Your task to perform on an android device: Clear all items from cart on walmart.com. Add usb-c to usb-a to the cart on walmart.com Image 0: 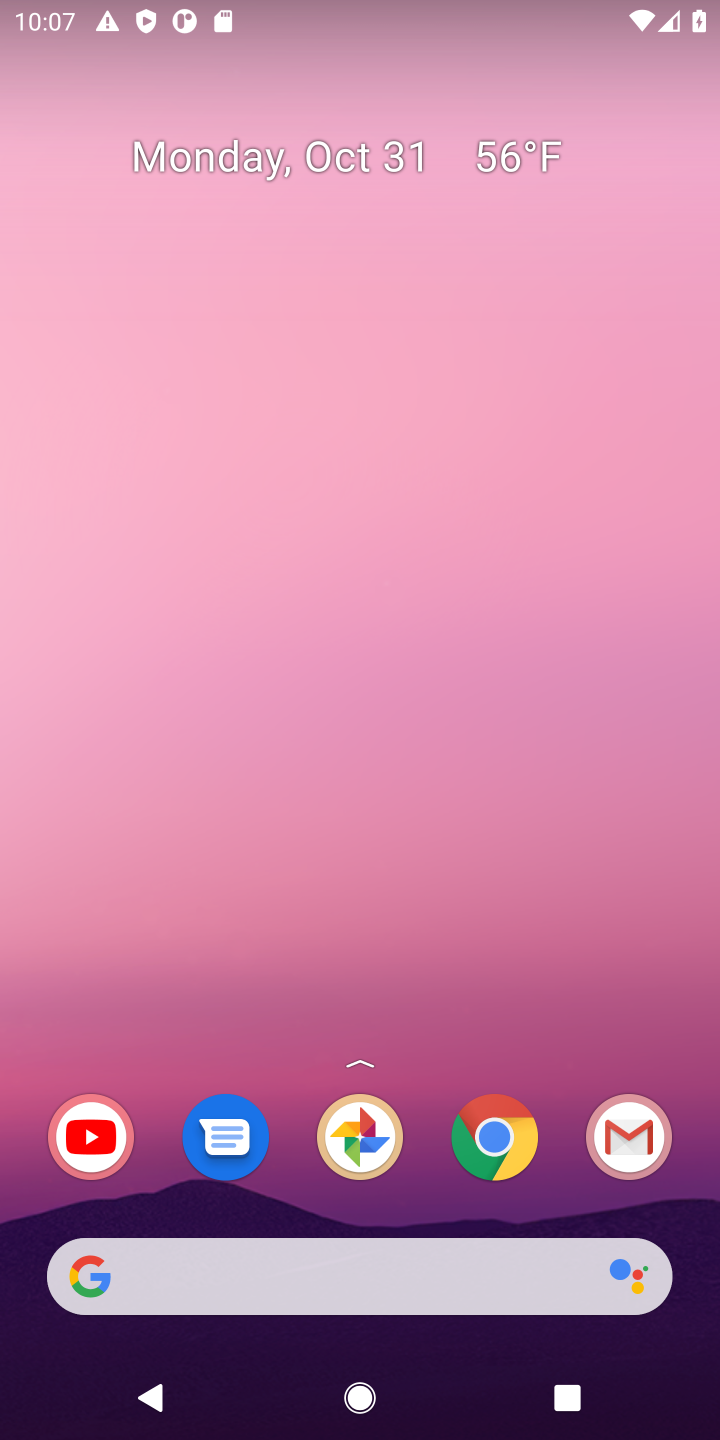
Step 0: click (496, 1136)
Your task to perform on an android device: Clear all items from cart on walmart.com. Add usb-c to usb-a to the cart on walmart.com Image 1: 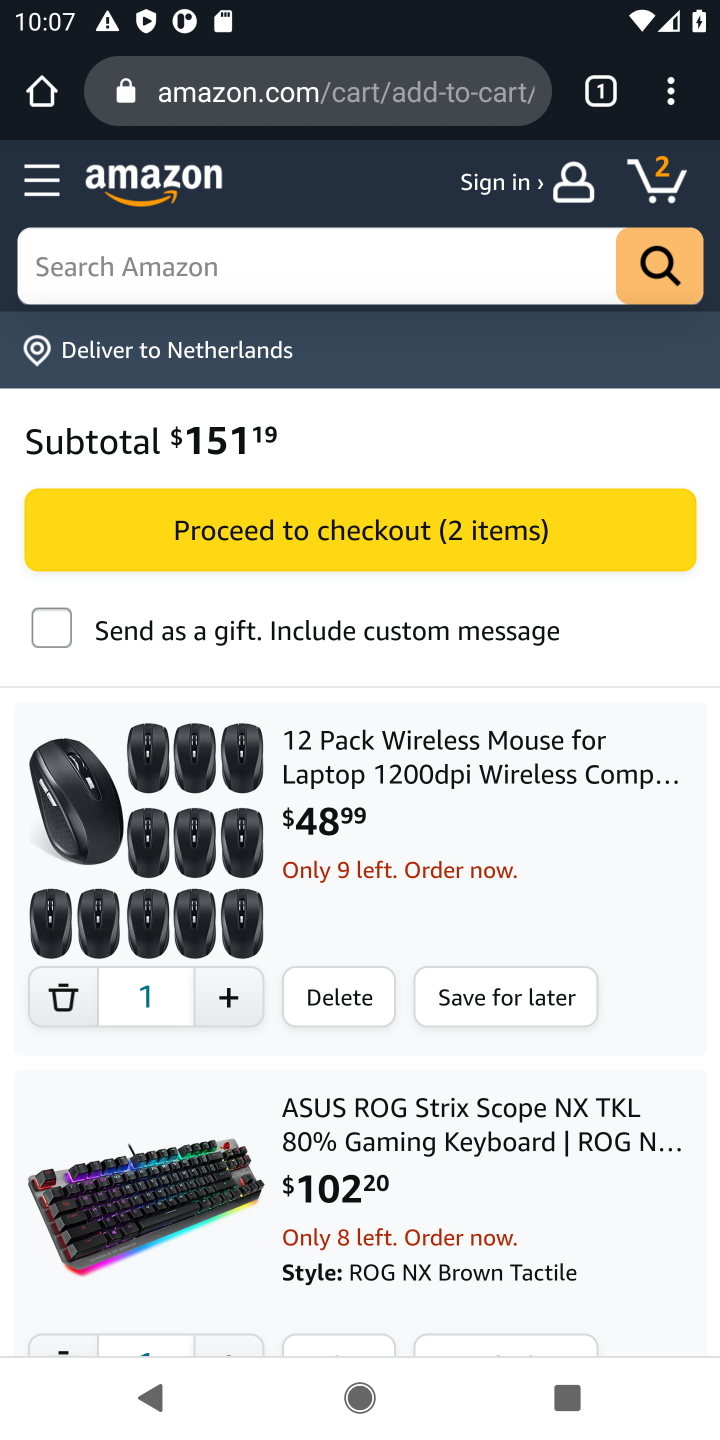
Step 1: click (322, 76)
Your task to perform on an android device: Clear all items from cart on walmart.com. Add usb-c to usb-a to the cart on walmart.com Image 2: 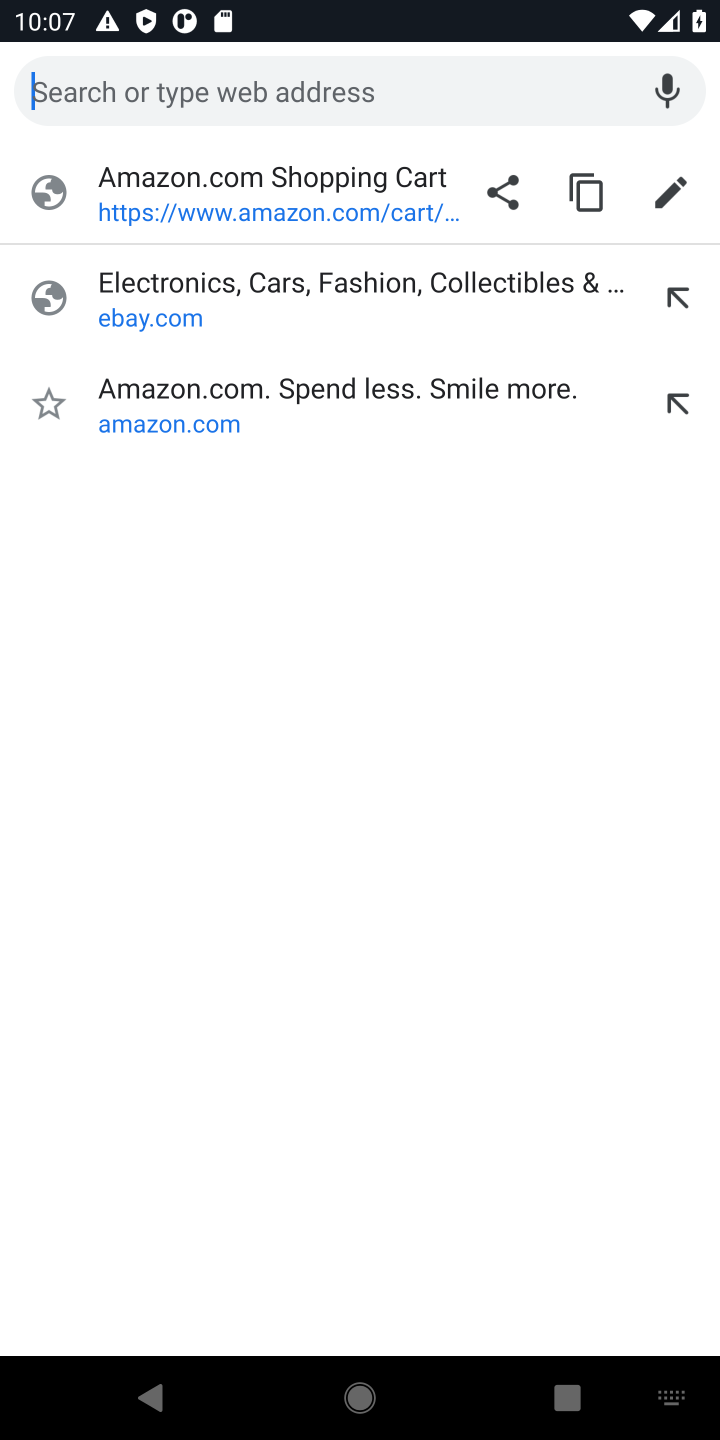
Step 2: type "walmart.com"
Your task to perform on an android device: Clear all items from cart on walmart.com. Add usb-c to usb-a to the cart on walmart.com Image 3: 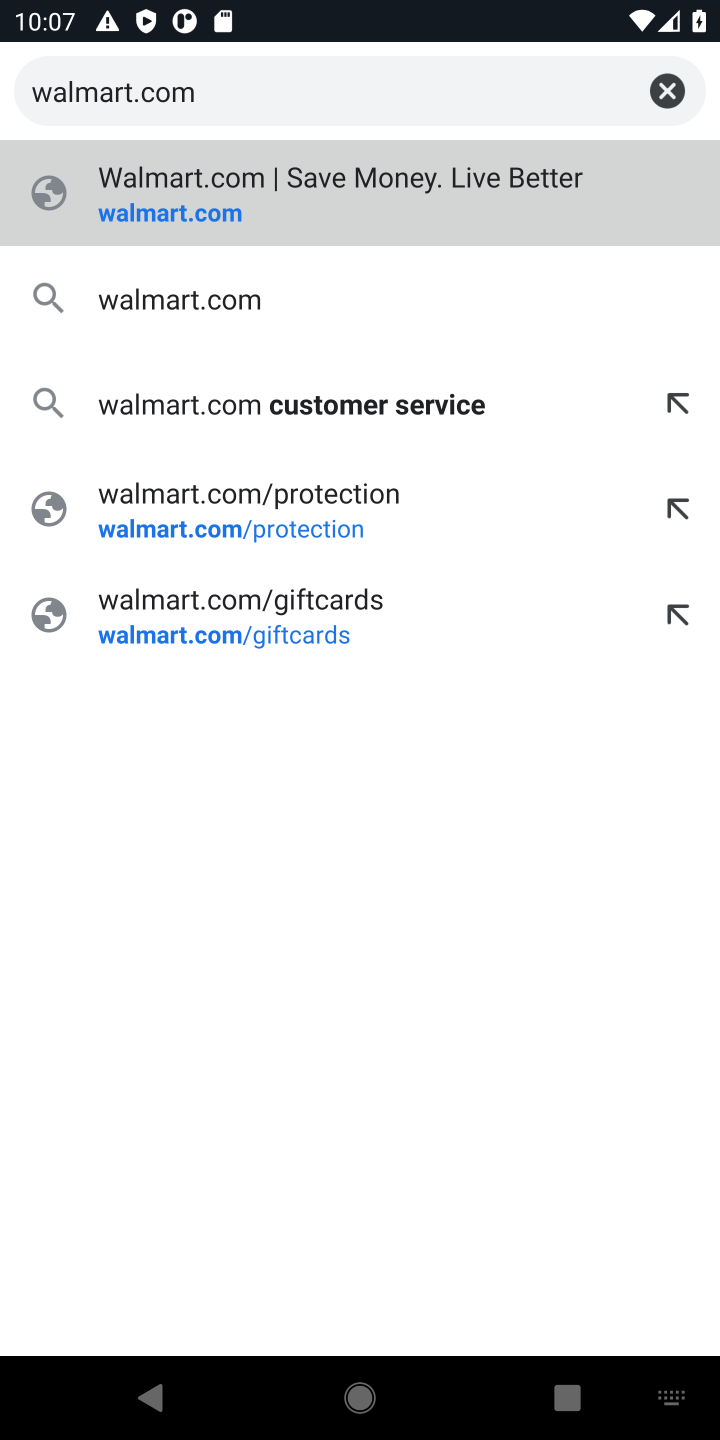
Step 3: click (234, 309)
Your task to perform on an android device: Clear all items from cart on walmart.com. Add usb-c to usb-a to the cart on walmart.com Image 4: 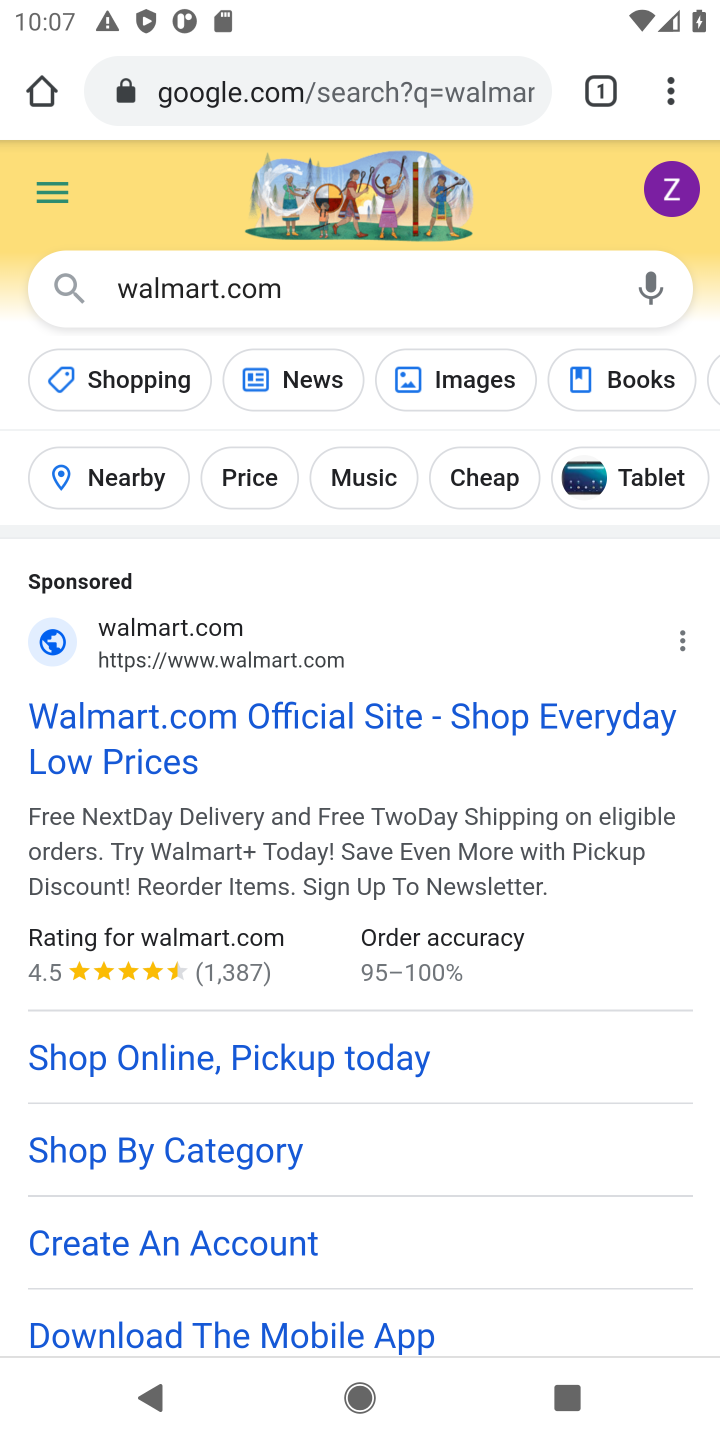
Step 4: drag from (388, 797) to (414, 328)
Your task to perform on an android device: Clear all items from cart on walmart.com. Add usb-c to usb-a to the cart on walmart.com Image 5: 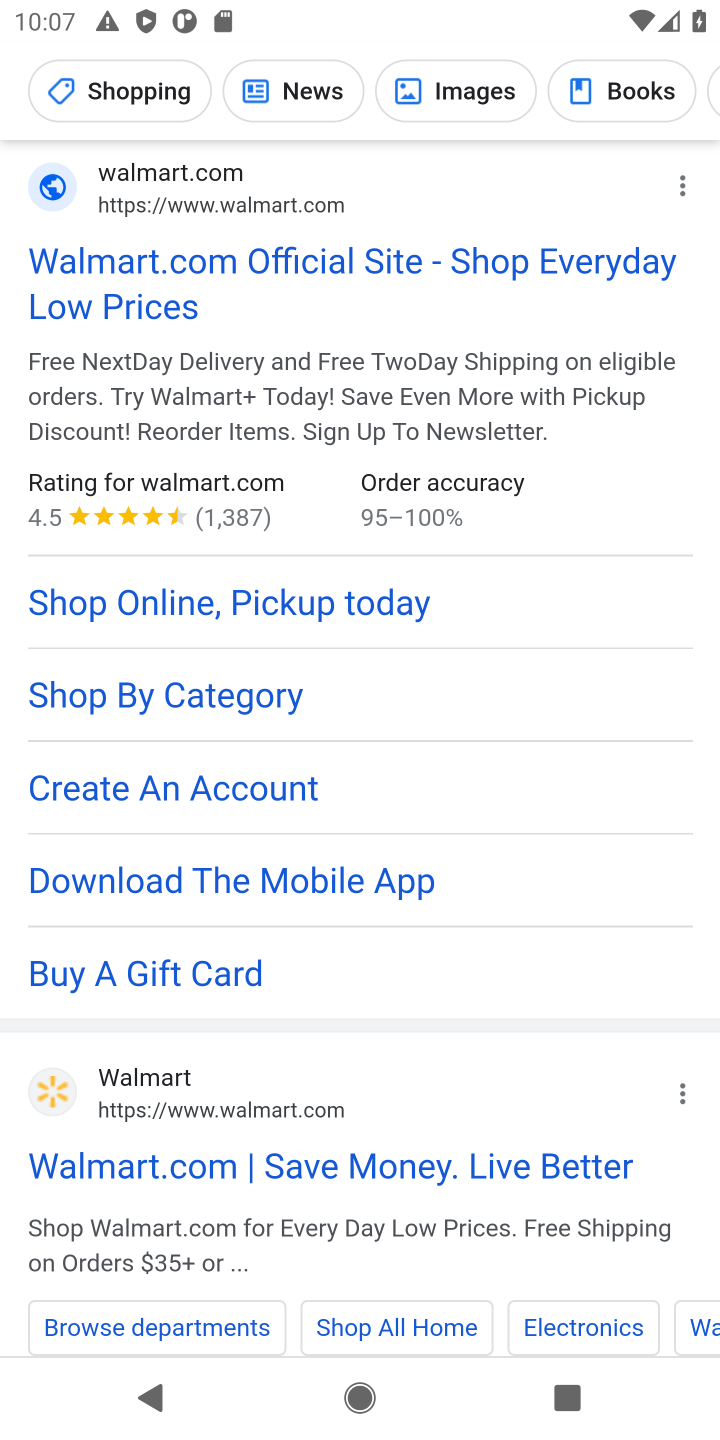
Step 5: click (296, 1162)
Your task to perform on an android device: Clear all items from cart on walmart.com. Add usb-c to usb-a to the cart on walmart.com Image 6: 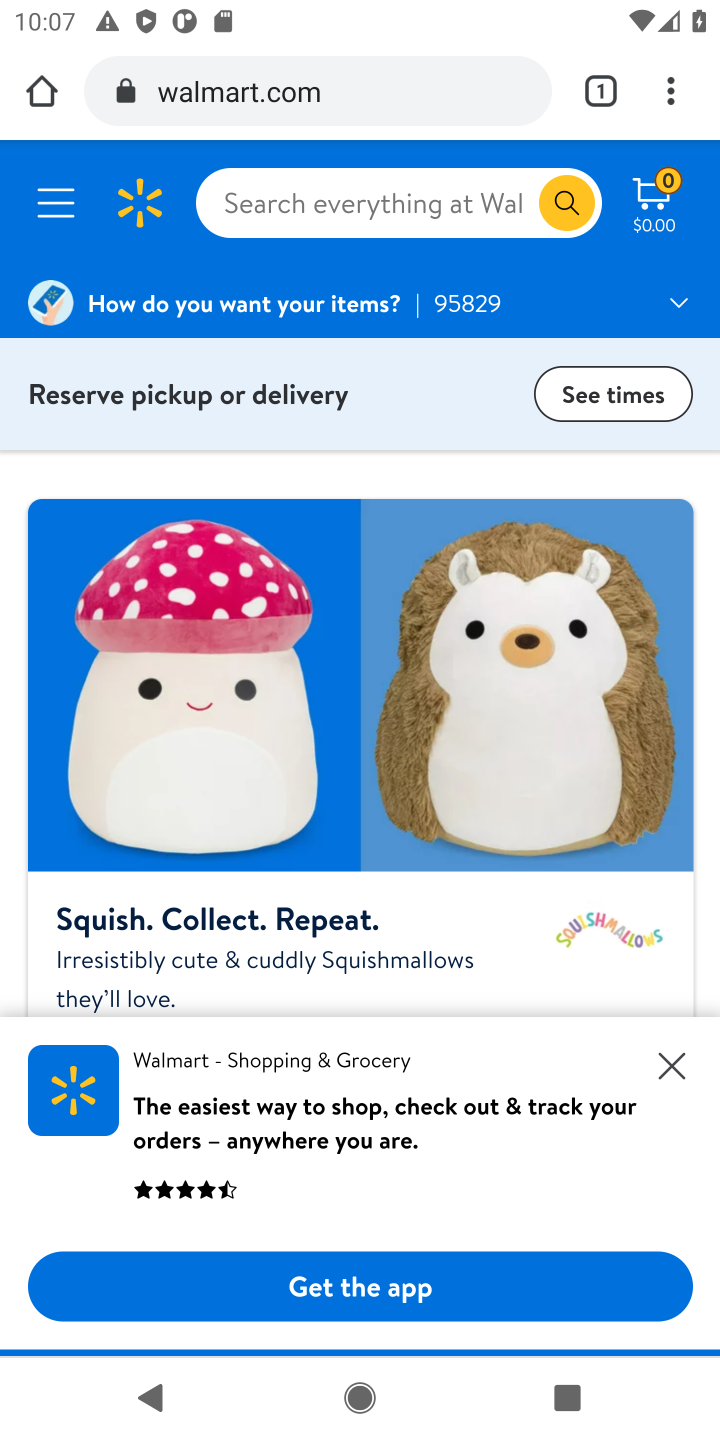
Step 6: click (656, 195)
Your task to perform on an android device: Clear all items from cart on walmart.com. Add usb-c to usb-a to the cart on walmart.com Image 7: 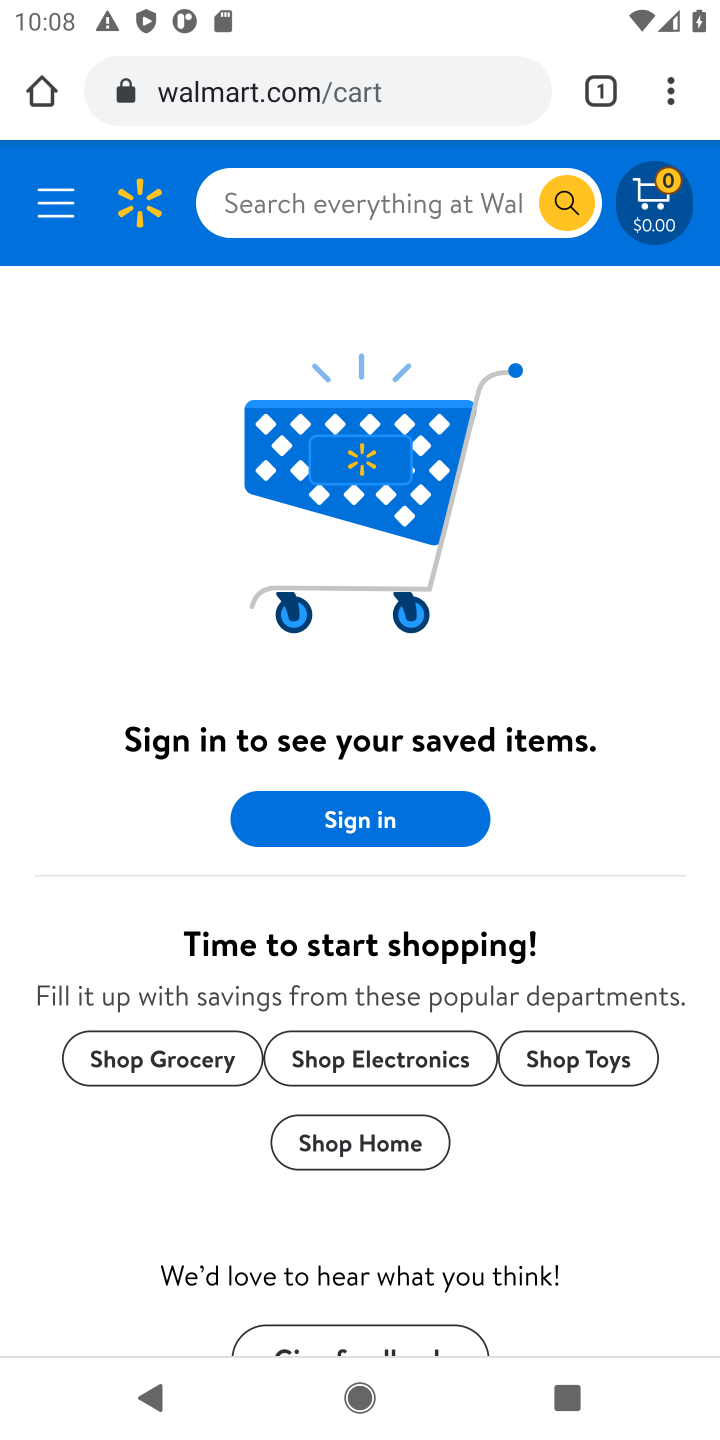
Step 7: click (394, 201)
Your task to perform on an android device: Clear all items from cart on walmart.com. Add usb-c to usb-a to the cart on walmart.com Image 8: 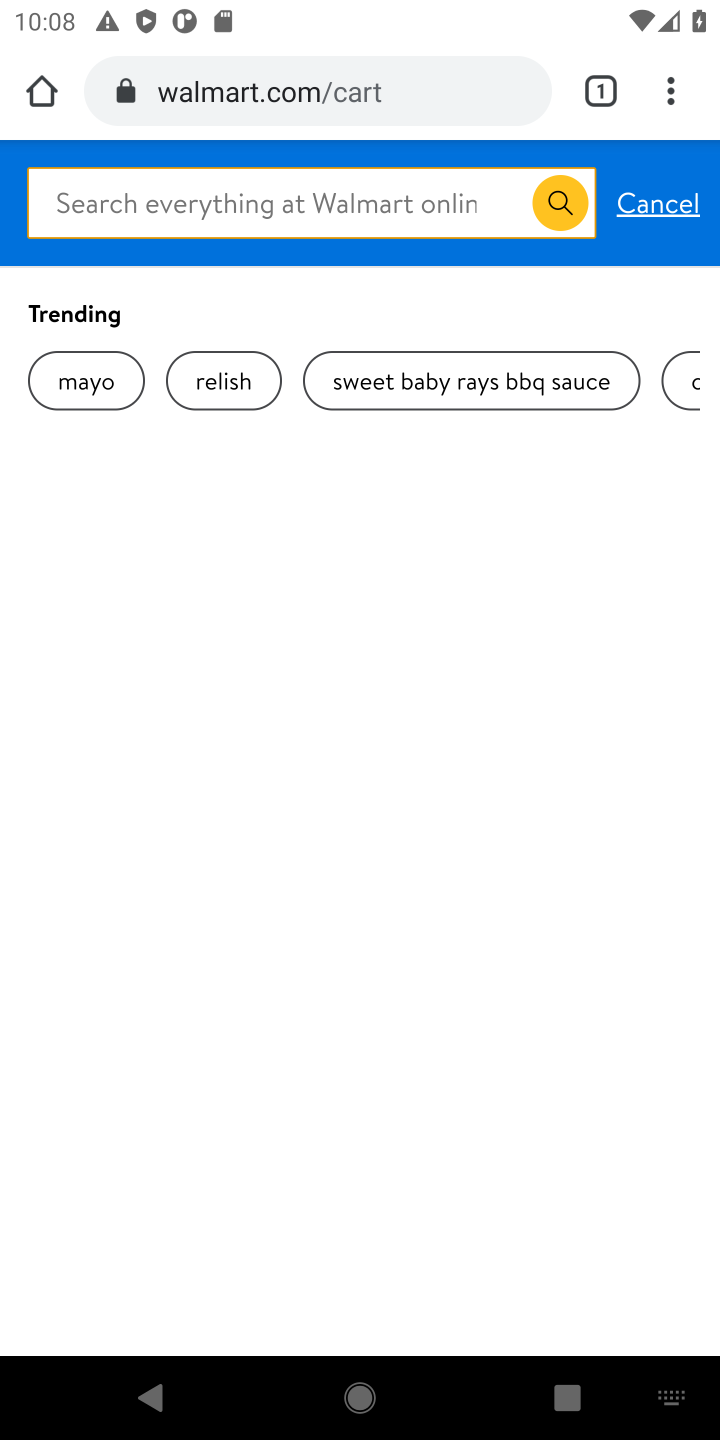
Step 8: type "usb-c to usb-a"
Your task to perform on an android device: Clear all items from cart on walmart.com. Add usb-c to usb-a to the cart on walmart.com Image 9: 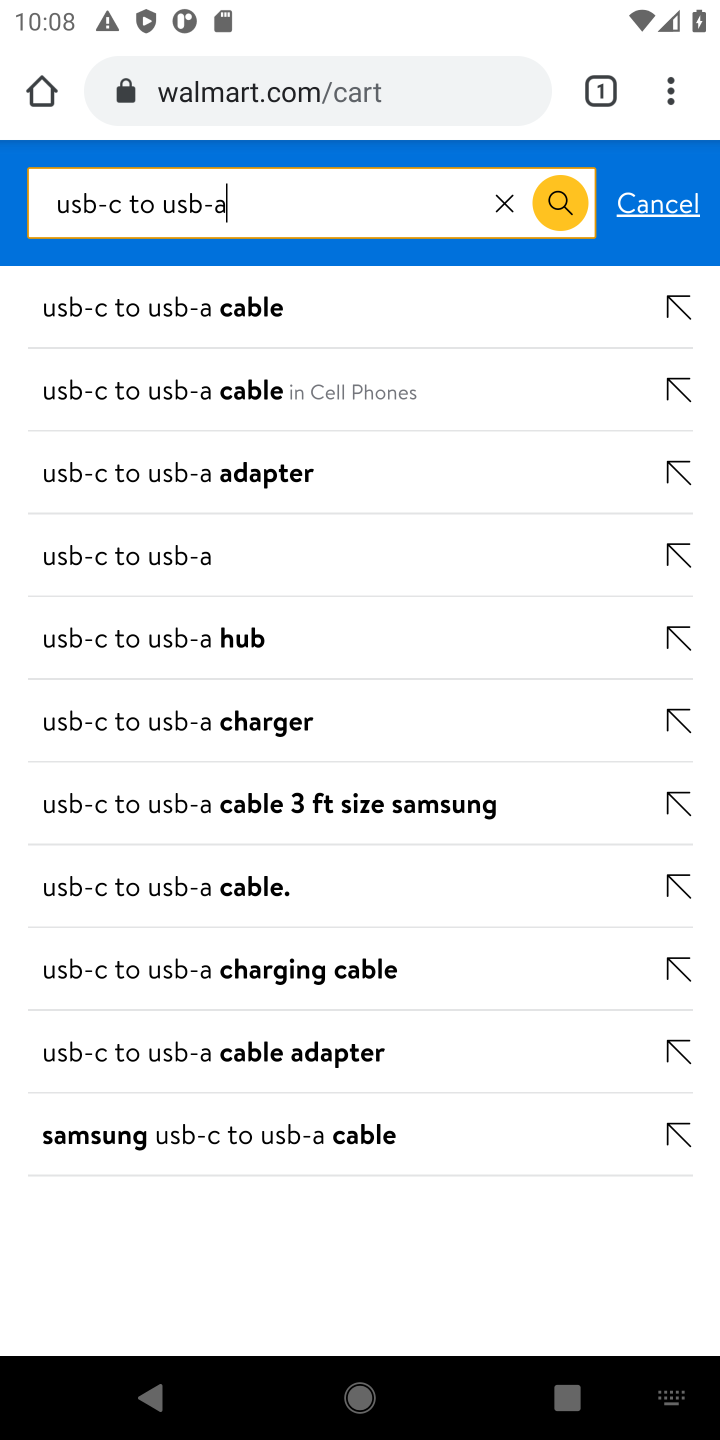
Step 9: click (561, 213)
Your task to perform on an android device: Clear all items from cart on walmart.com. Add usb-c to usb-a to the cart on walmart.com Image 10: 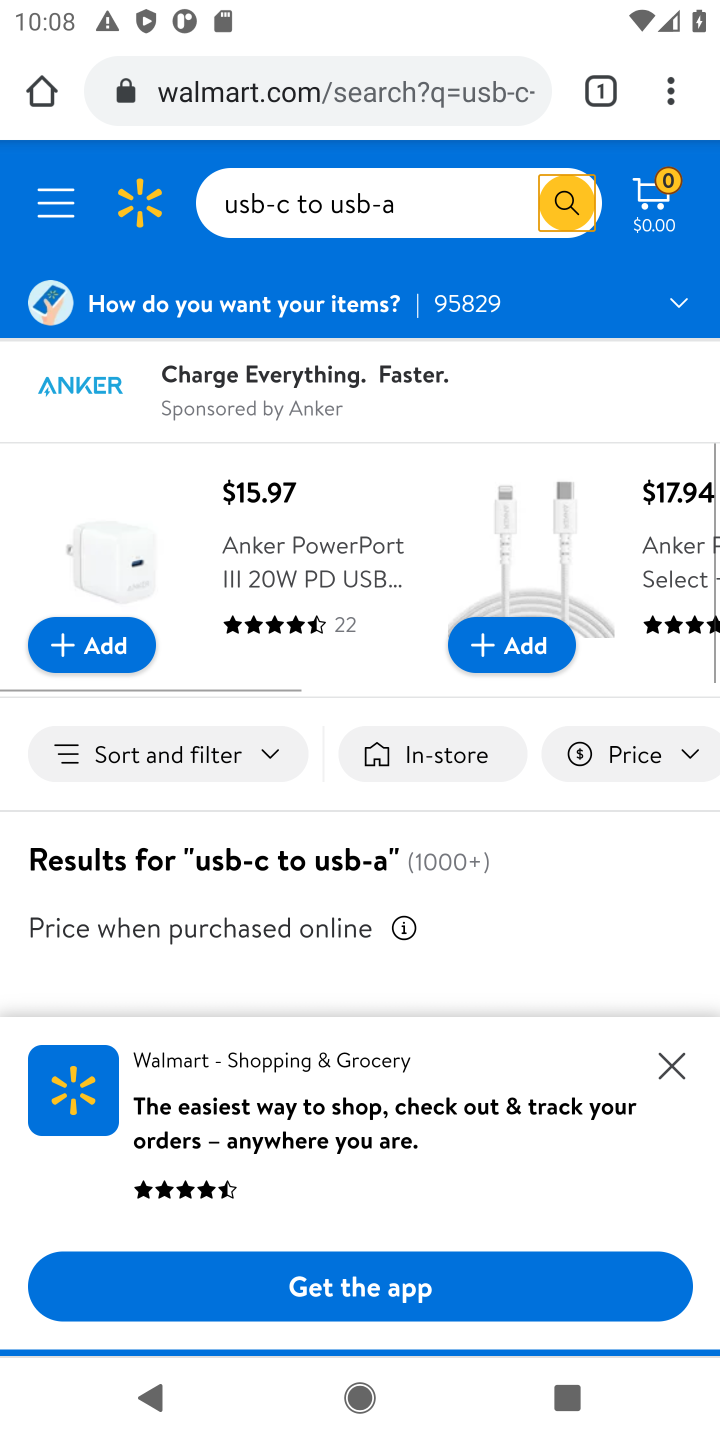
Step 10: click (671, 1057)
Your task to perform on an android device: Clear all items from cart on walmart.com. Add usb-c to usb-a to the cart on walmart.com Image 11: 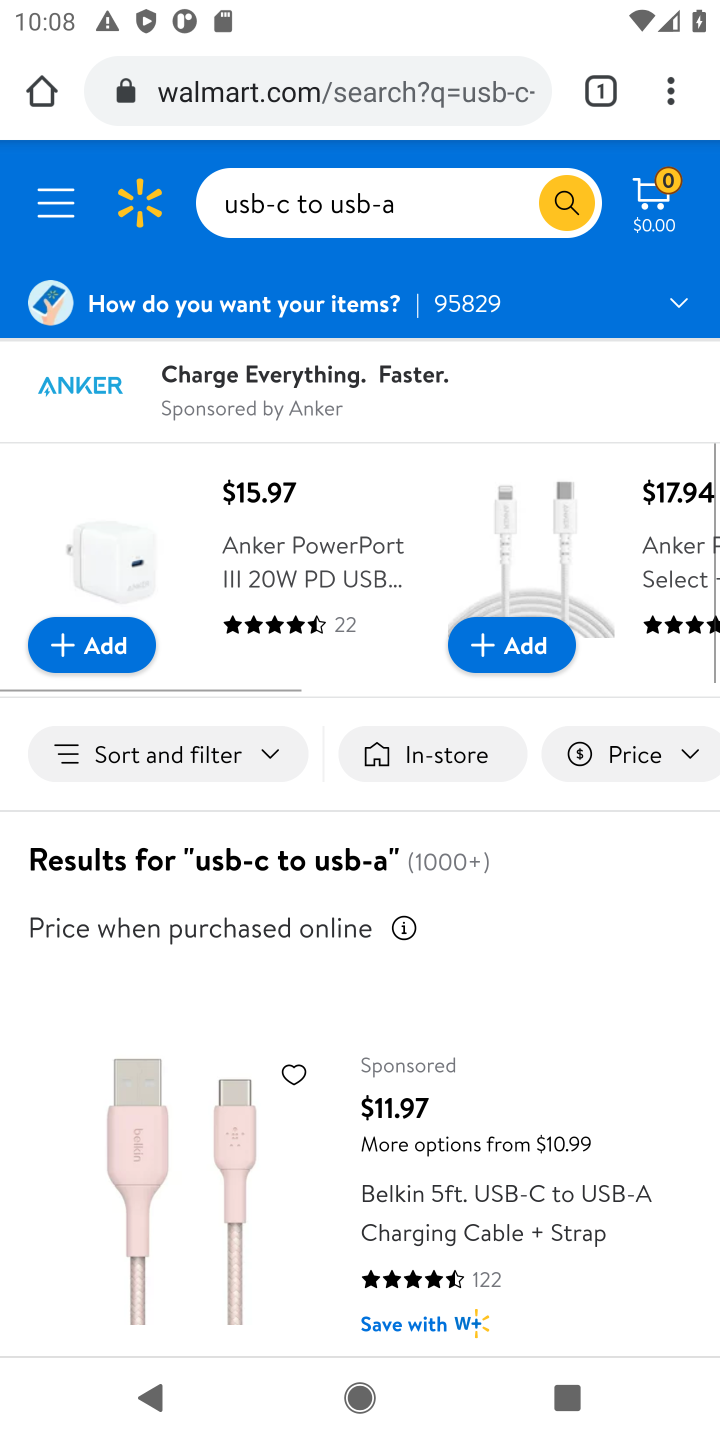
Step 11: click (118, 651)
Your task to perform on an android device: Clear all items from cart on walmart.com. Add usb-c to usb-a to the cart on walmart.com Image 12: 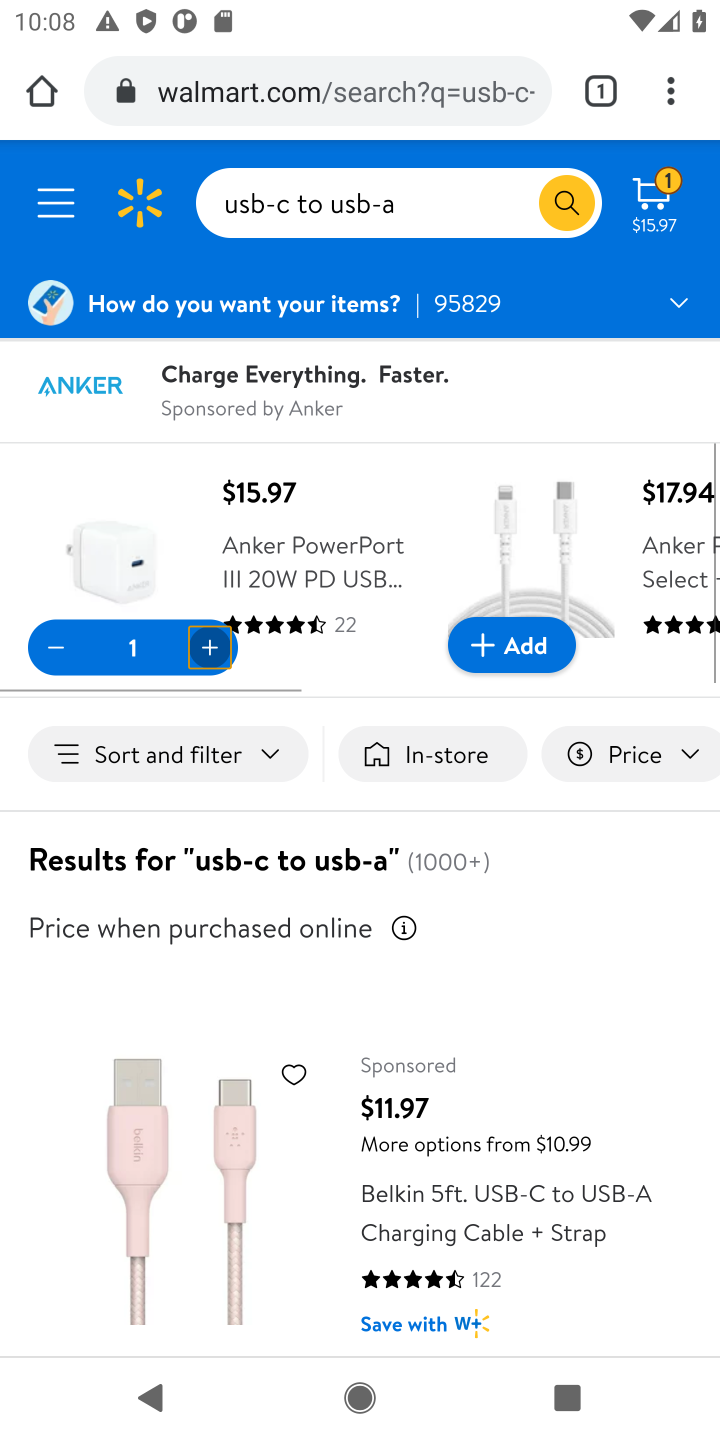
Step 12: task complete